Your task to perform on an android device: open app "Instagram" (install if not already installed) Image 0: 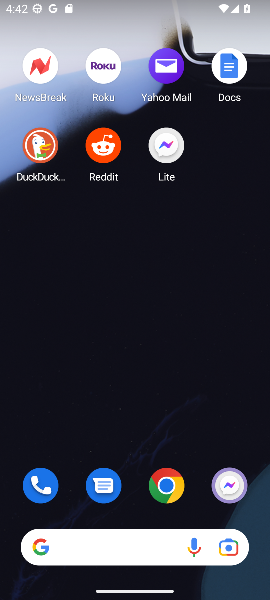
Step 0: drag from (123, 445) to (181, 56)
Your task to perform on an android device: open app "Instagram" (install if not already installed) Image 1: 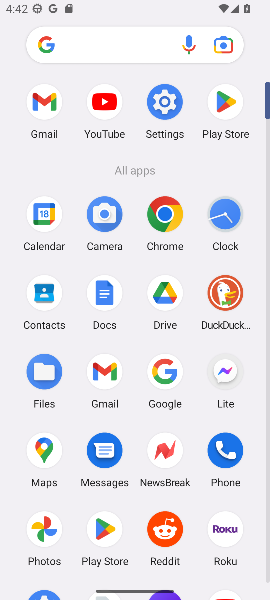
Step 1: click (231, 106)
Your task to perform on an android device: open app "Instagram" (install if not already installed) Image 2: 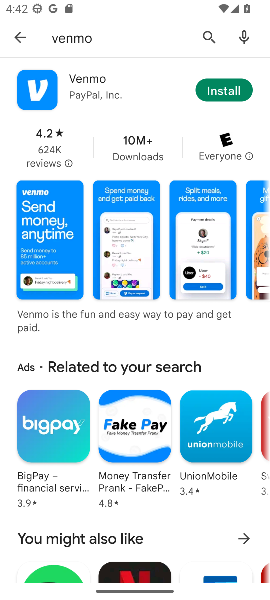
Step 2: click (207, 36)
Your task to perform on an android device: open app "Instagram" (install if not already installed) Image 3: 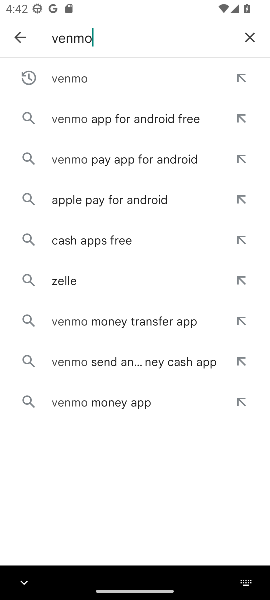
Step 3: click (248, 33)
Your task to perform on an android device: open app "Instagram" (install if not already installed) Image 4: 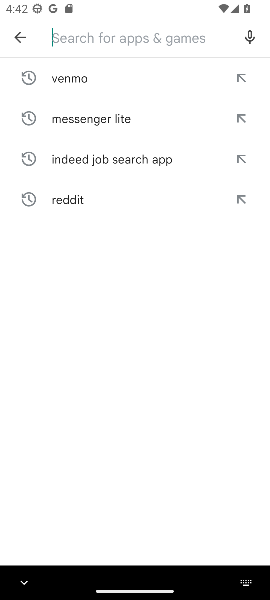
Step 4: type "instagram"
Your task to perform on an android device: open app "Instagram" (install if not already installed) Image 5: 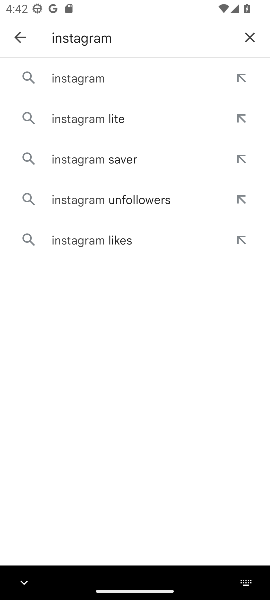
Step 5: click (99, 79)
Your task to perform on an android device: open app "Instagram" (install if not already installed) Image 6: 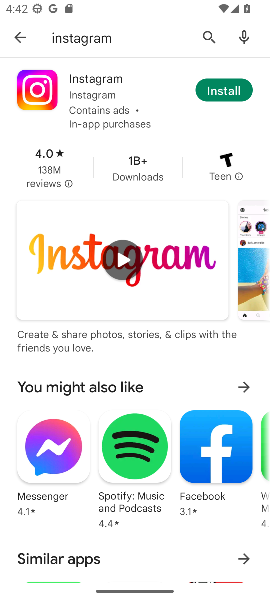
Step 6: click (217, 91)
Your task to perform on an android device: open app "Instagram" (install if not already installed) Image 7: 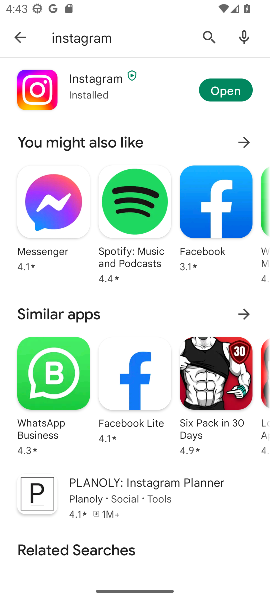
Step 7: click (222, 92)
Your task to perform on an android device: open app "Instagram" (install if not already installed) Image 8: 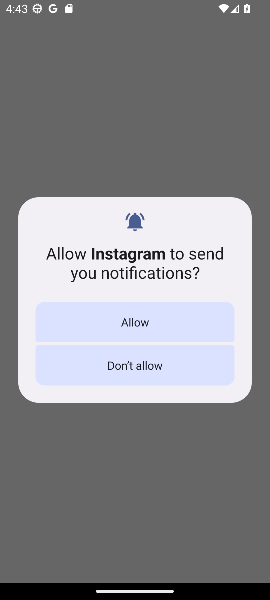
Step 8: task complete